Your task to perform on an android device: change your default location settings in chrome Image 0: 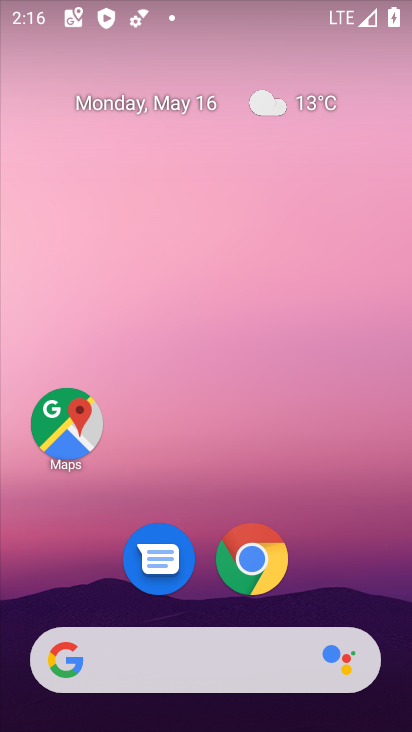
Step 0: click (272, 549)
Your task to perform on an android device: change your default location settings in chrome Image 1: 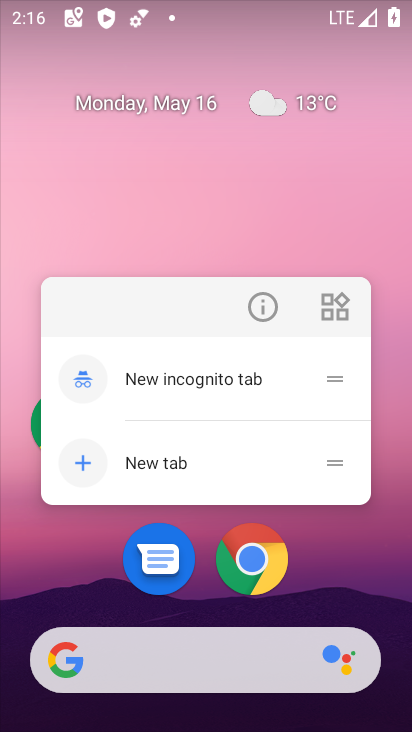
Step 1: click (246, 559)
Your task to perform on an android device: change your default location settings in chrome Image 2: 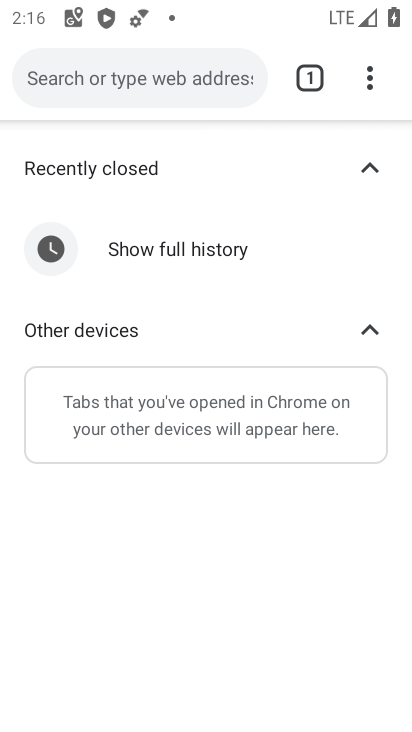
Step 2: click (368, 67)
Your task to perform on an android device: change your default location settings in chrome Image 3: 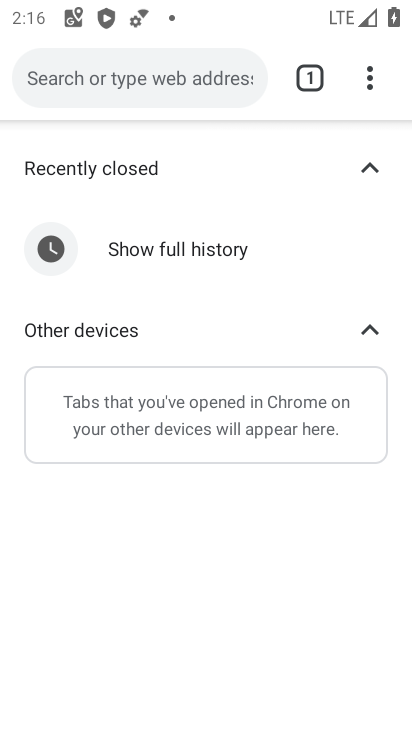
Step 3: drag from (369, 80) to (86, 603)
Your task to perform on an android device: change your default location settings in chrome Image 4: 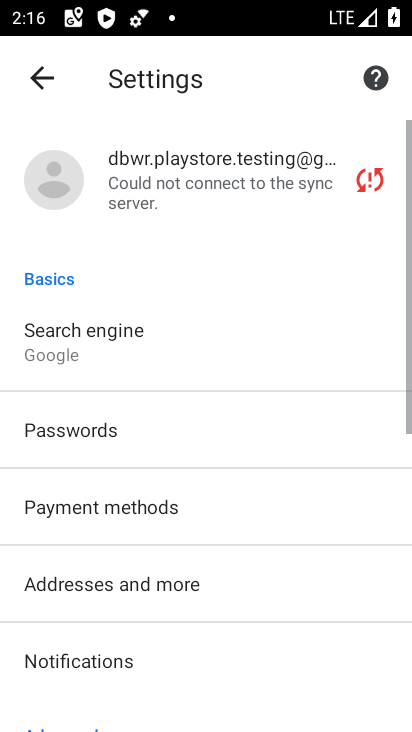
Step 4: drag from (129, 599) to (198, 117)
Your task to perform on an android device: change your default location settings in chrome Image 5: 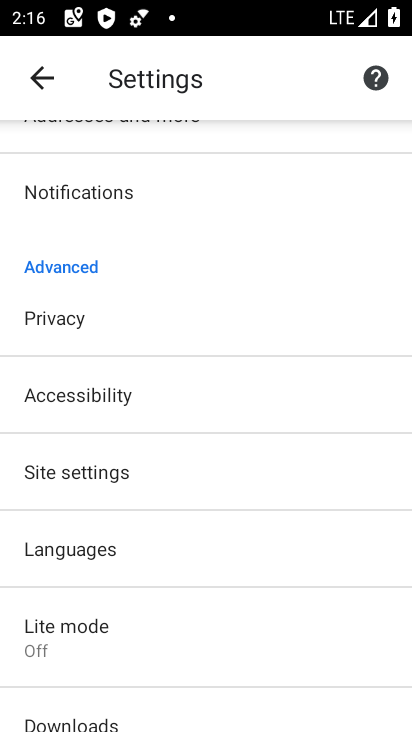
Step 5: drag from (172, 256) to (201, 194)
Your task to perform on an android device: change your default location settings in chrome Image 6: 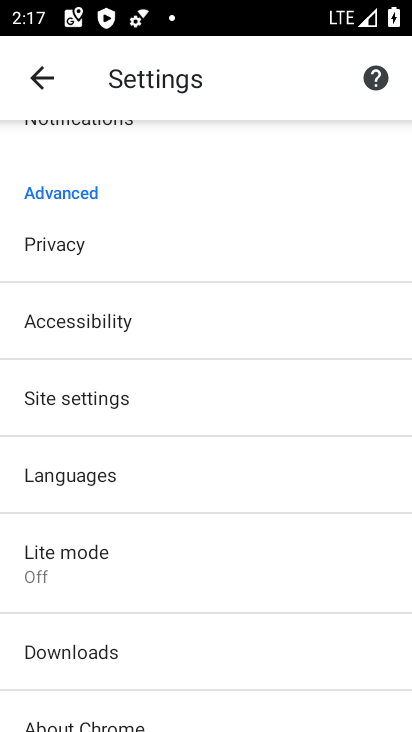
Step 6: click (128, 404)
Your task to perform on an android device: change your default location settings in chrome Image 7: 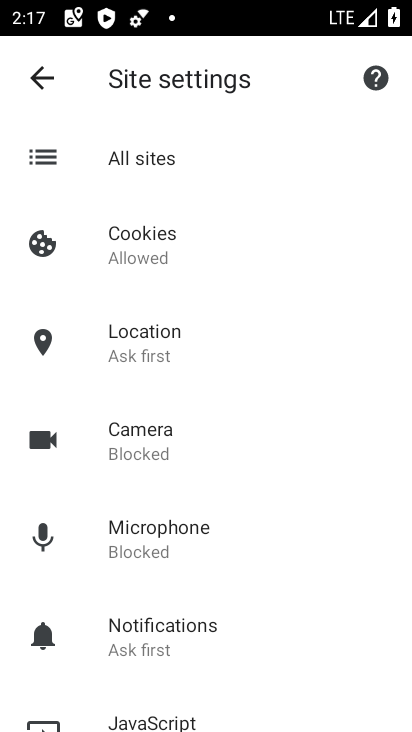
Step 7: click (125, 352)
Your task to perform on an android device: change your default location settings in chrome Image 8: 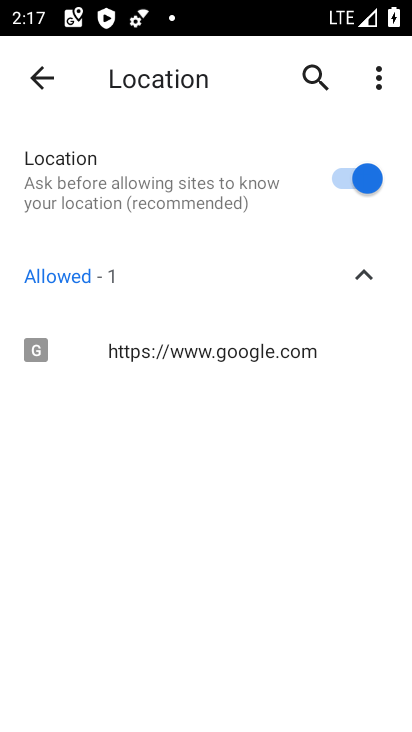
Step 8: click (355, 183)
Your task to perform on an android device: change your default location settings in chrome Image 9: 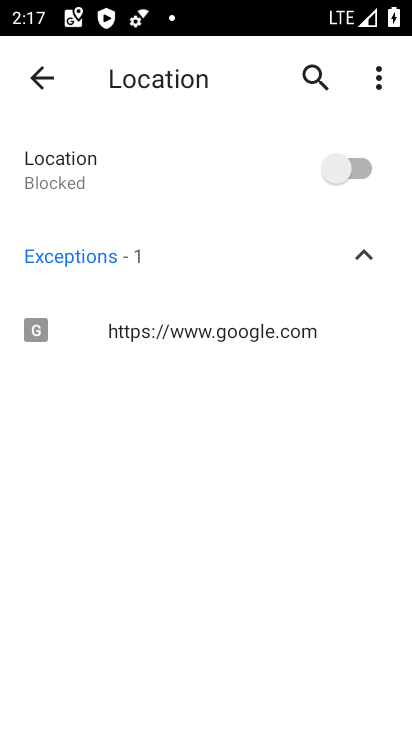
Step 9: task complete